Your task to perform on an android device: stop showing notifications on the lock screen Image 0: 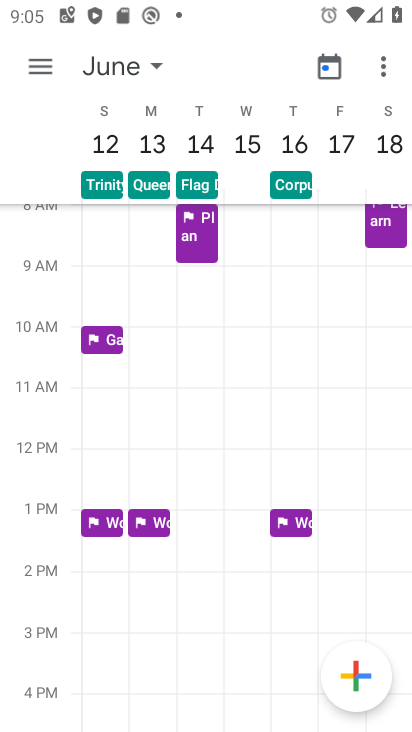
Step 0: press home button
Your task to perform on an android device: stop showing notifications on the lock screen Image 1: 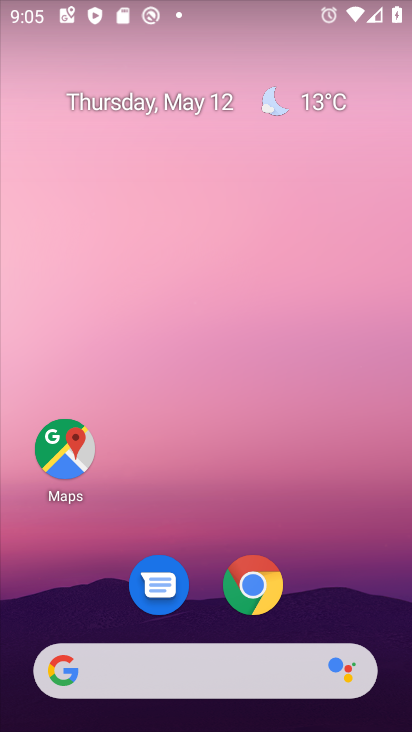
Step 1: drag from (230, 454) to (257, 64)
Your task to perform on an android device: stop showing notifications on the lock screen Image 2: 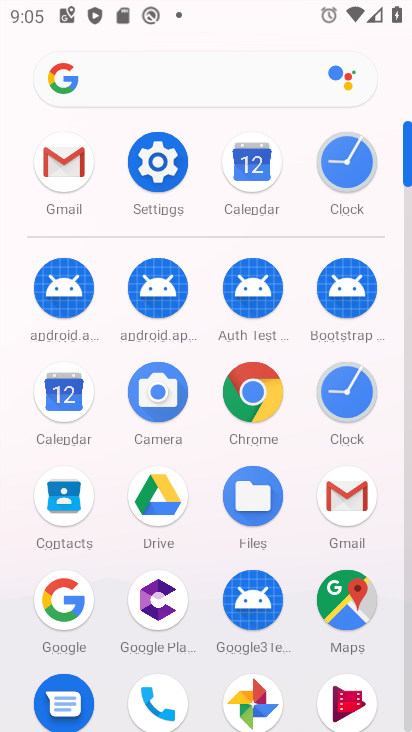
Step 2: click (162, 169)
Your task to perform on an android device: stop showing notifications on the lock screen Image 3: 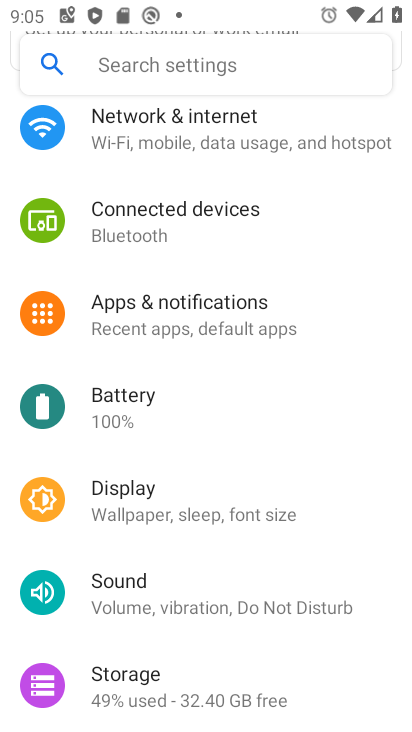
Step 3: click (214, 317)
Your task to perform on an android device: stop showing notifications on the lock screen Image 4: 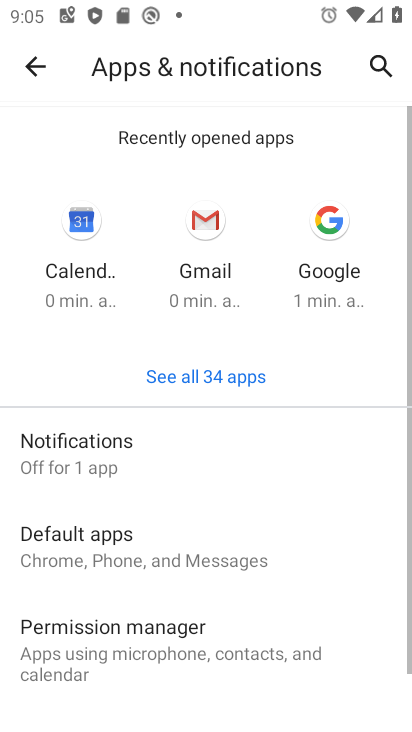
Step 4: click (185, 460)
Your task to perform on an android device: stop showing notifications on the lock screen Image 5: 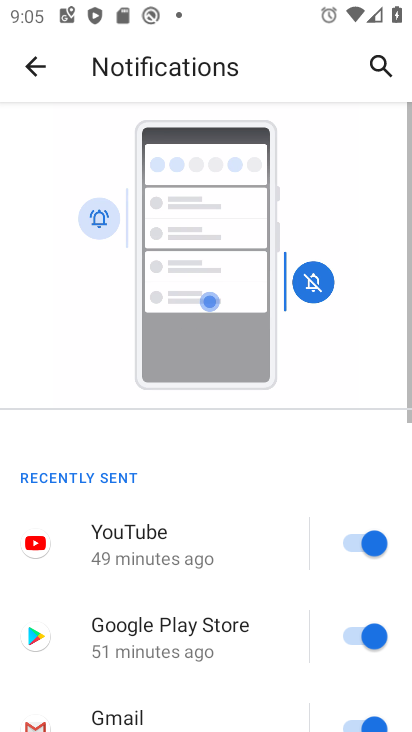
Step 5: drag from (185, 522) to (256, 202)
Your task to perform on an android device: stop showing notifications on the lock screen Image 6: 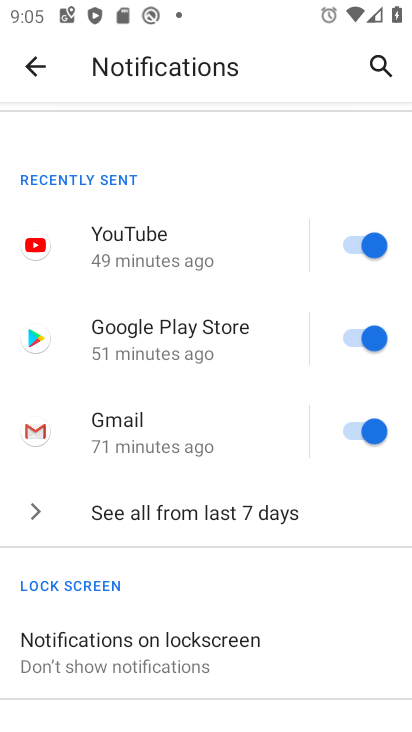
Step 6: click (226, 641)
Your task to perform on an android device: stop showing notifications on the lock screen Image 7: 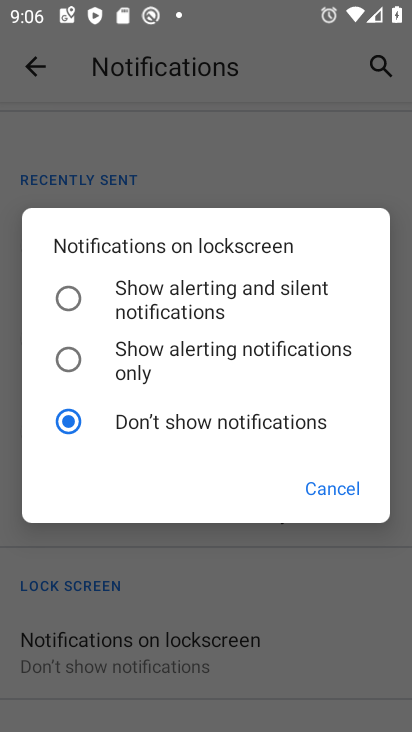
Step 7: click (346, 484)
Your task to perform on an android device: stop showing notifications on the lock screen Image 8: 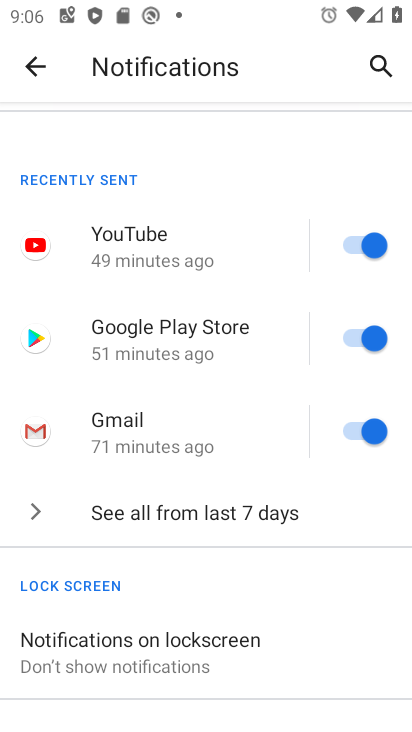
Step 8: task complete